Your task to perform on an android device: open a new tab in the chrome app Image 0: 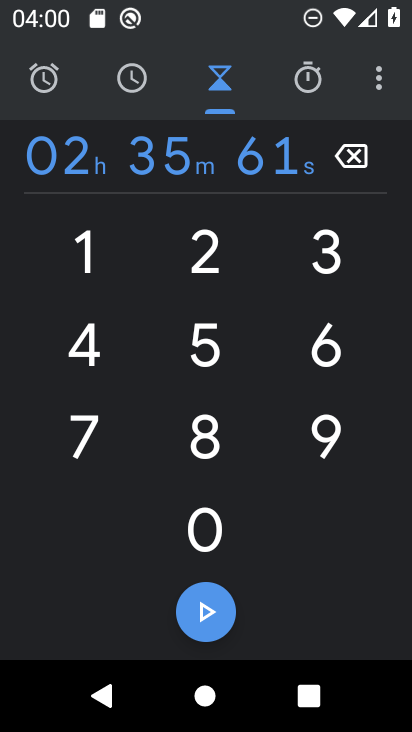
Step 0: press back button
Your task to perform on an android device: open a new tab in the chrome app Image 1: 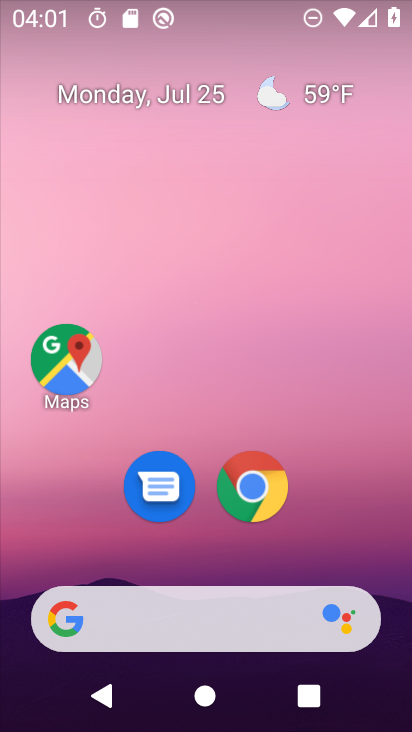
Step 1: click (263, 457)
Your task to perform on an android device: open a new tab in the chrome app Image 2: 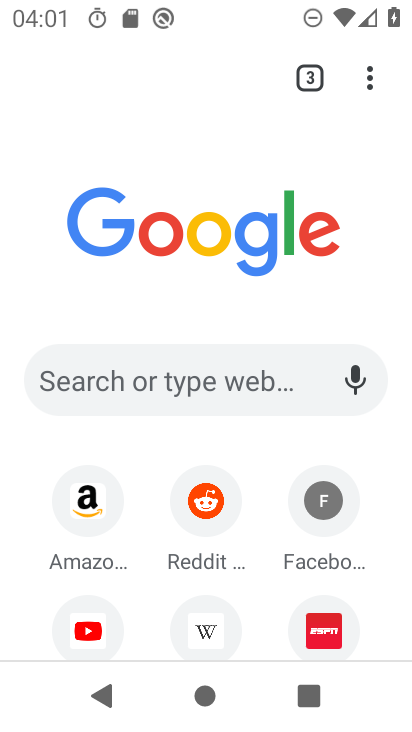
Step 2: task complete